Your task to perform on an android device: Look up the best rated pressure washer on Home Depot. Image 0: 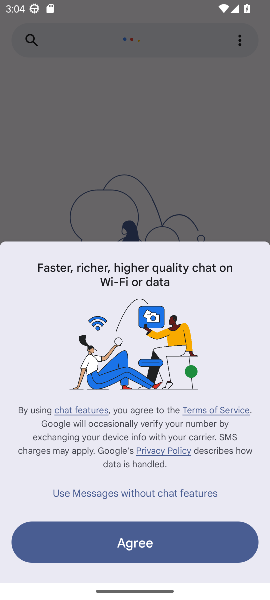
Step 0: press home button
Your task to perform on an android device: Look up the best rated pressure washer on Home Depot. Image 1: 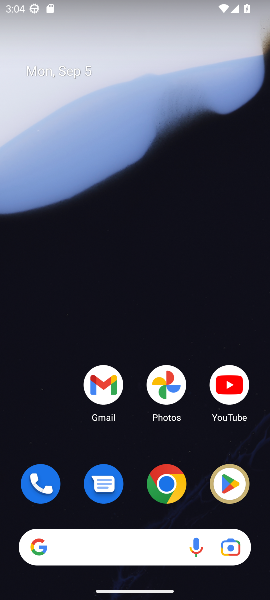
Step 1: click (166, 489)
Your task to perform on an android device: Look up the best rated pressure washer on Home Depot. Image 2: 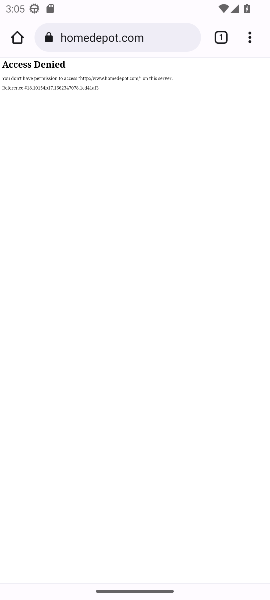
Step 2: task complete